Your task to perform on an android device: Clear the shopping cart on target. Add "razer kraken" to the cart on target, then select checkout. Image 0: 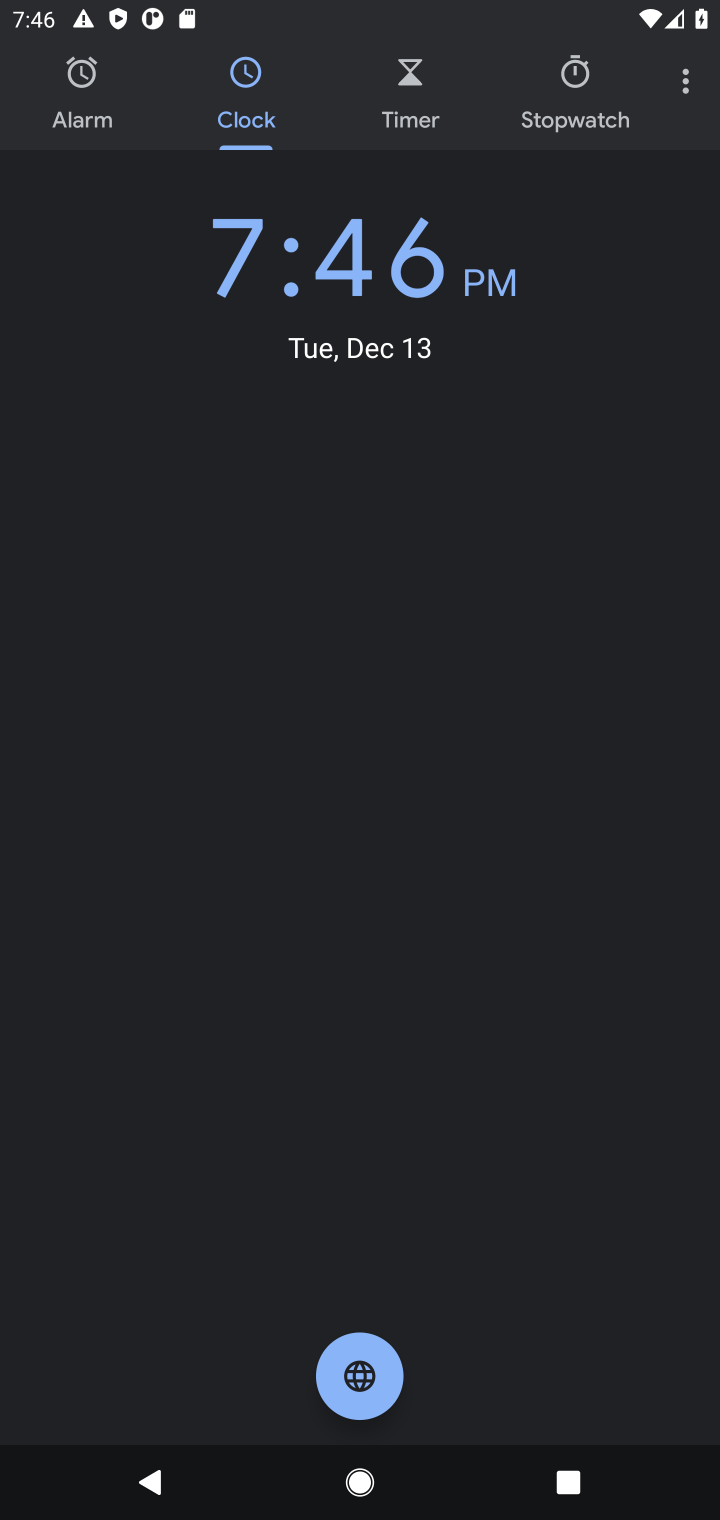
Step 0: press home button
Your task to perform on an android device: Clear the shopping cart on target. Add "razer kraken" to the cart on target, then select checkout. Image 1: 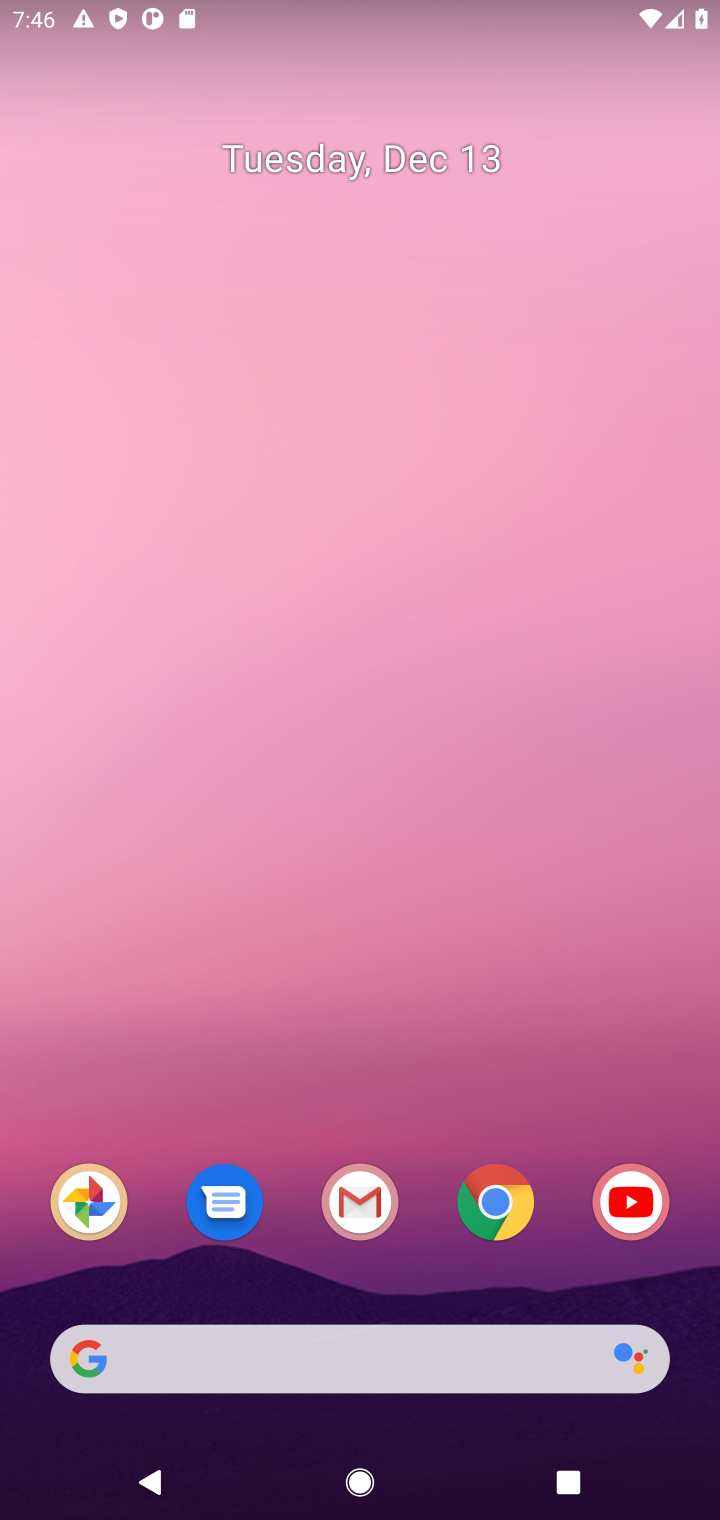
Step 1: click (490, 1207)
Your task to perform on an android device: Clear the shopping cart on target. Add "razer kraken" to the cart on target, then select checkout. Image 2: 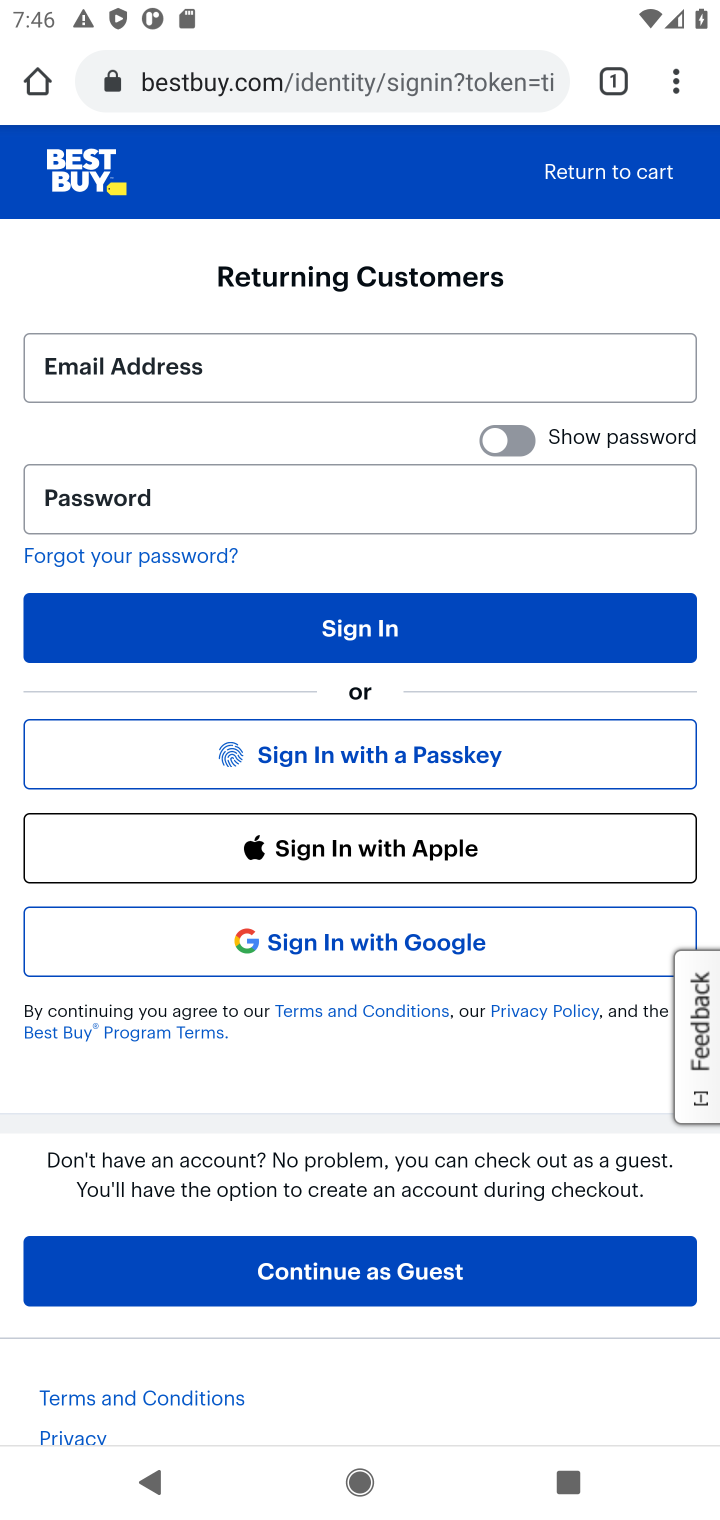
Step 2: click (289, 85)
Your task to perform on an android device: Clear the shopping cart on target. Add "razer kraken" to the cart on target, then select checkout. Image 3: 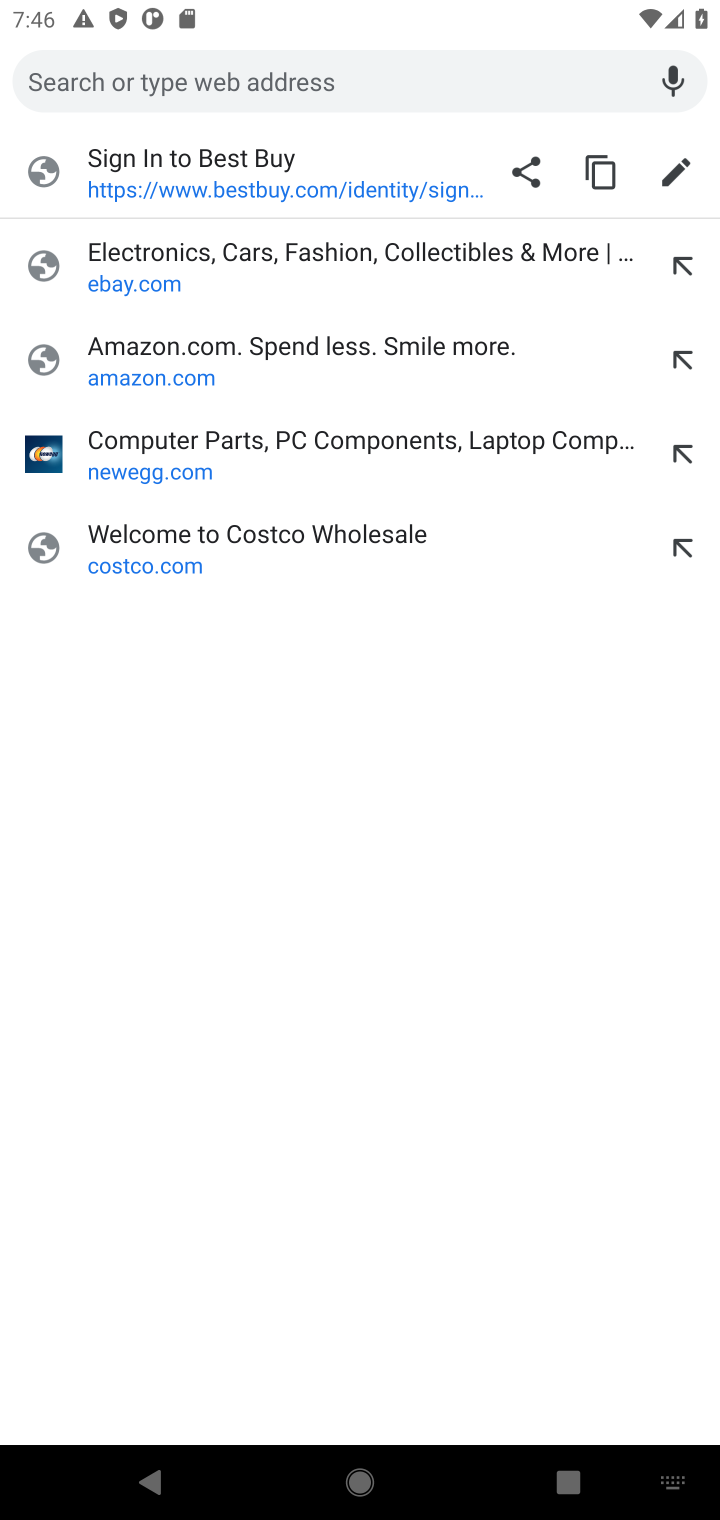
Step 3: type "target.com"
Your task to perform on an android device: Clear the shopping cart on target. Add "razer kraken" to the cart on target, then select checkout. Image 4: 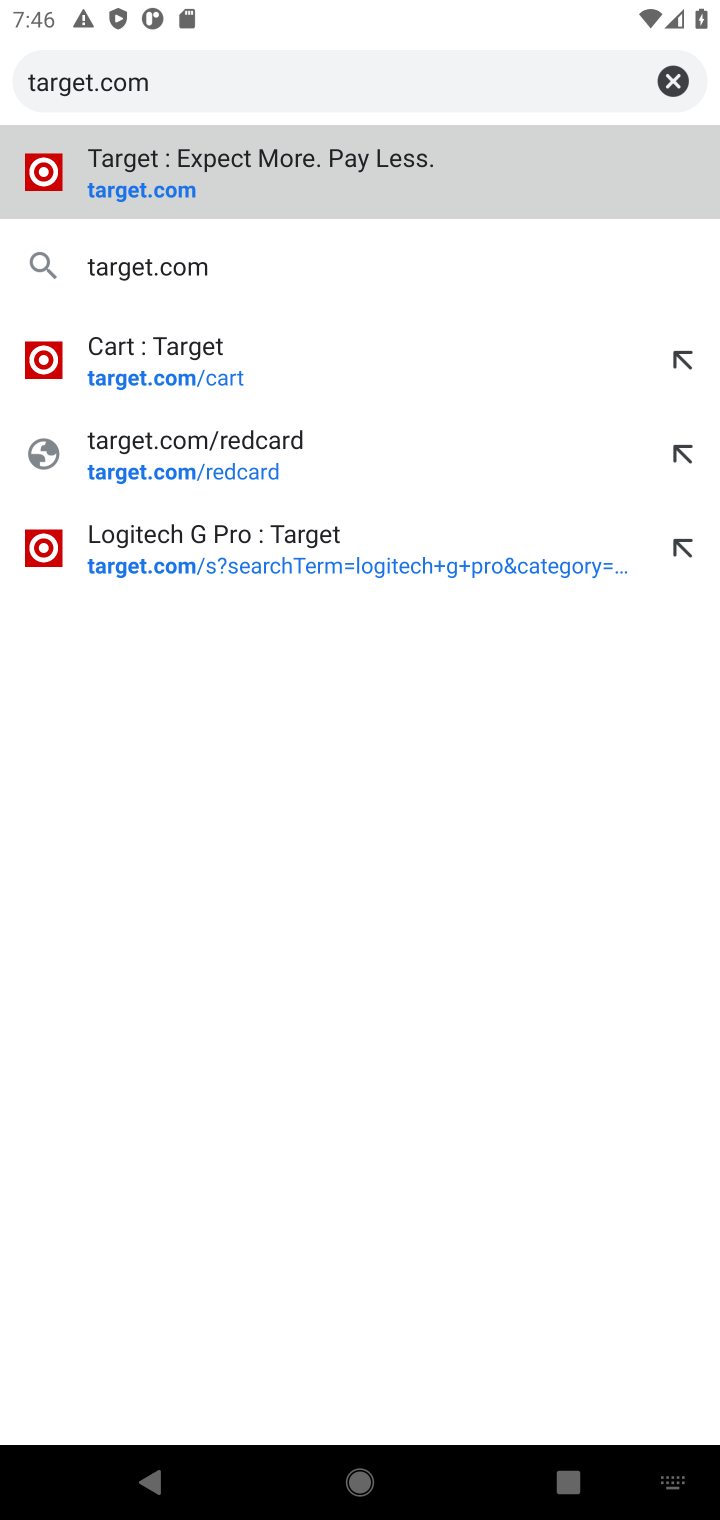
Step 4: click (157, 198)
Your task to perform on an android device: Clear the shopping cart on target. Add "razer kraken" to the cart on target, then select checkout. Image 5: 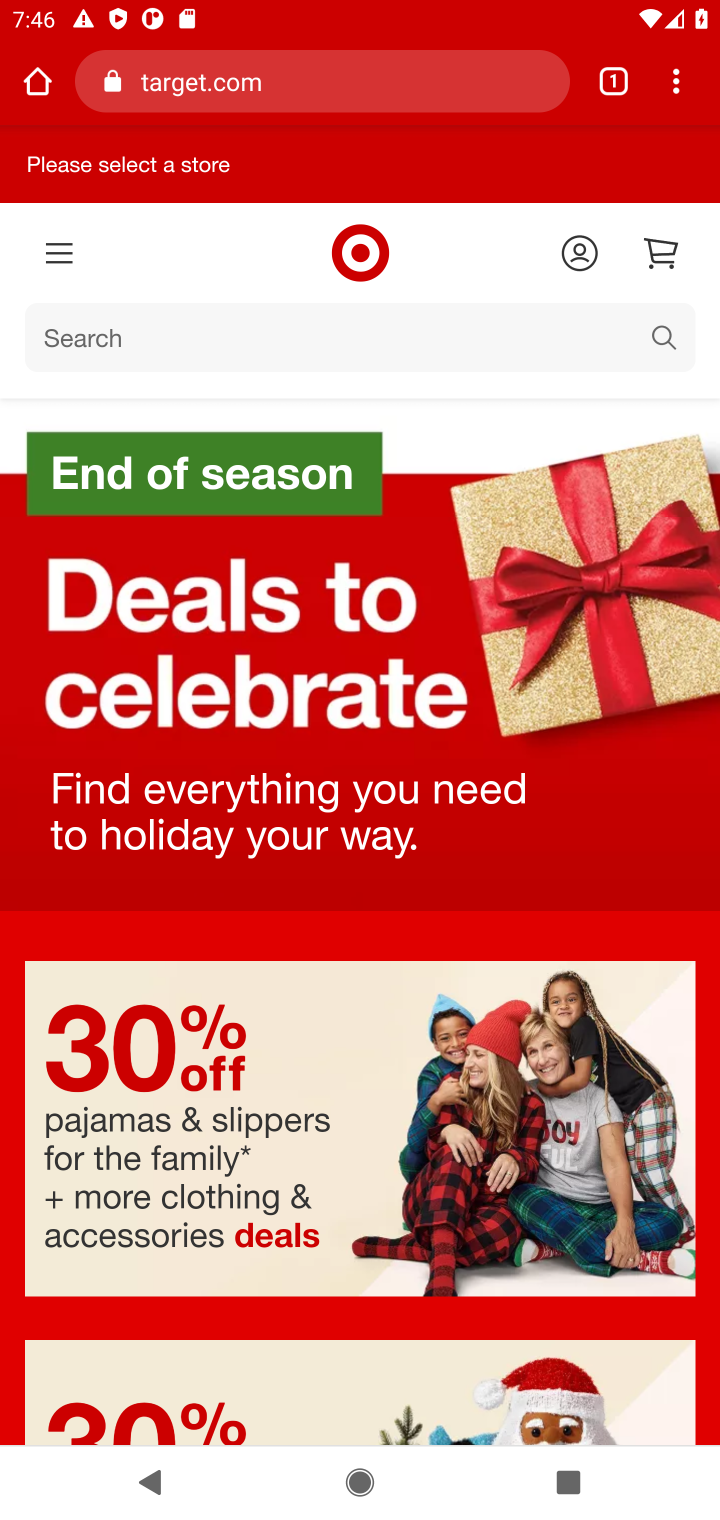
Step 5: click (652, 262)
Your task to perform on an android device: Clear the shopping cart on target. Add "razer kraken" to the cart on target, then select checkout. Image 6: 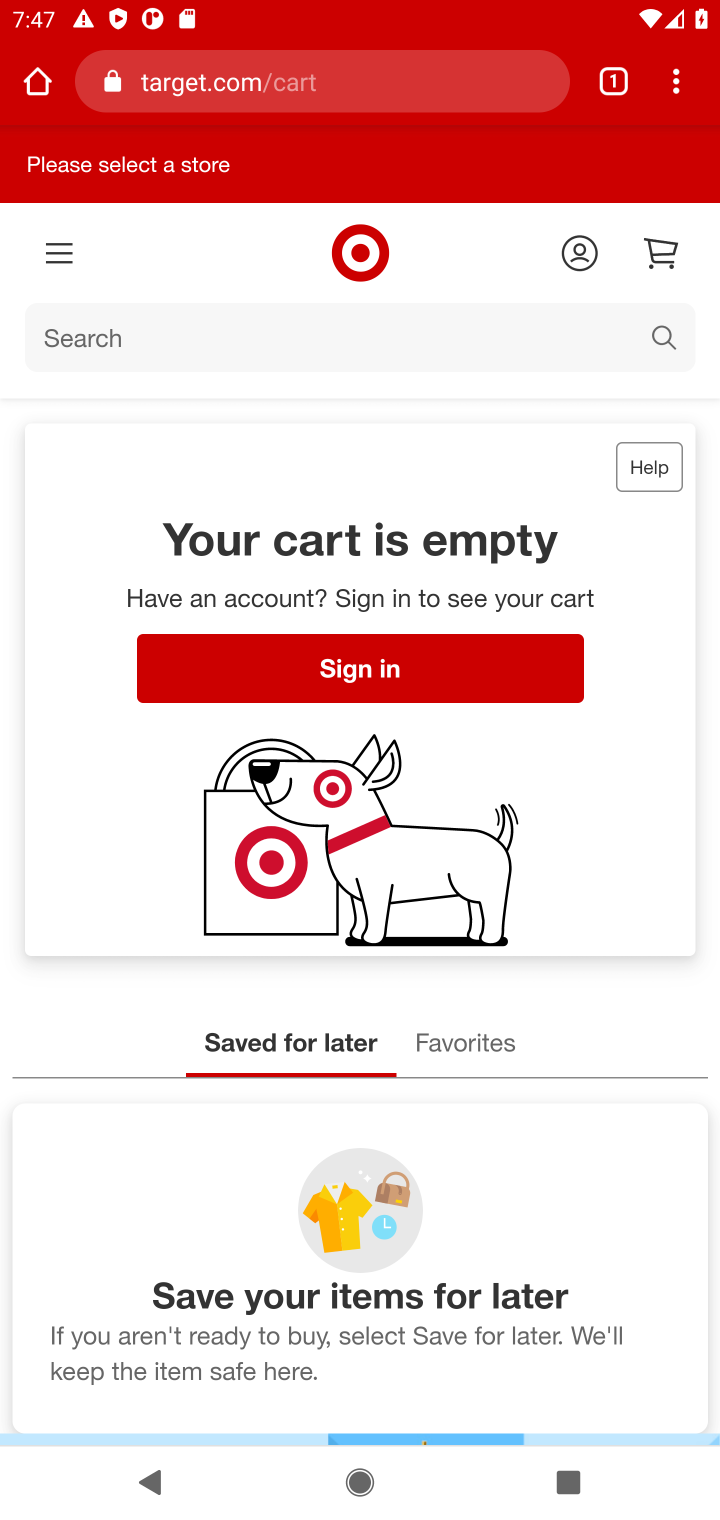
Step 6: click (87, 346)
Your task to perform on an android device: Clear the shopping cart on target. Add "razer kraken" to the cart on target, then select checkout. Image 7: 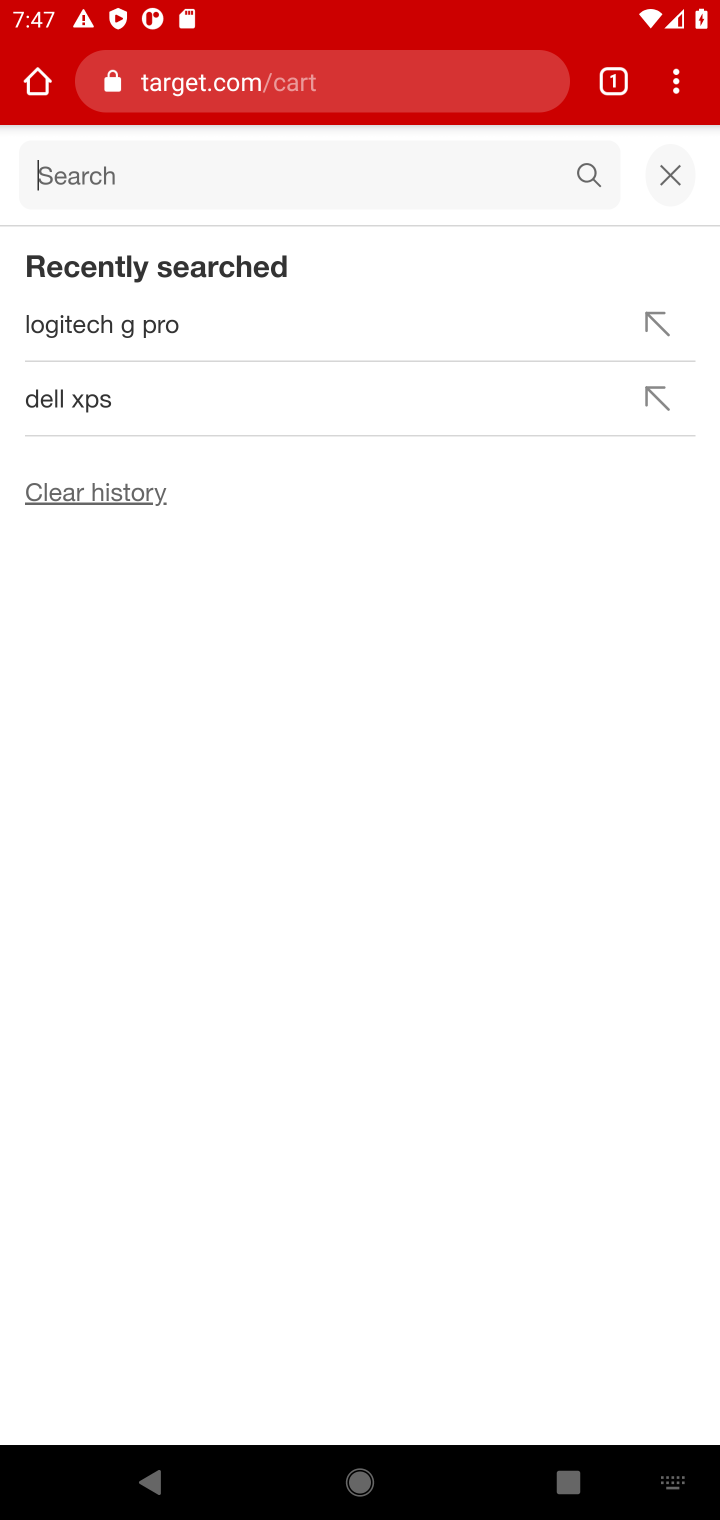
Step 7: type "razer kraken"
Your task to perform on an android device: Clear the shopping cart on target. Add "razer kraken" to the cart on target, then select checkout. Image 8: 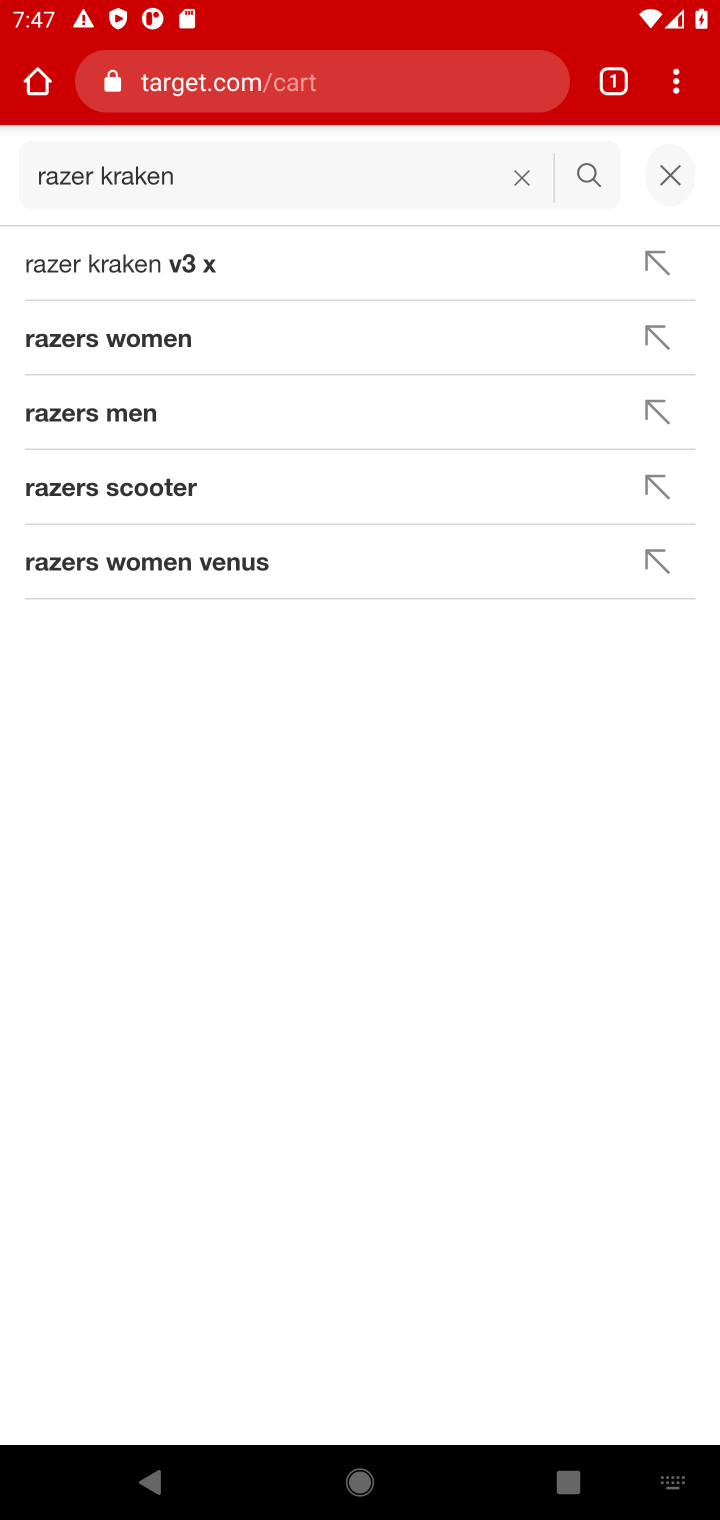
Step 8: click (587, 180)
Your task to perform on an android device: Clear the shopping cart on target. Add "razer kraken" to the cart on target, then select checkout. Image 9: 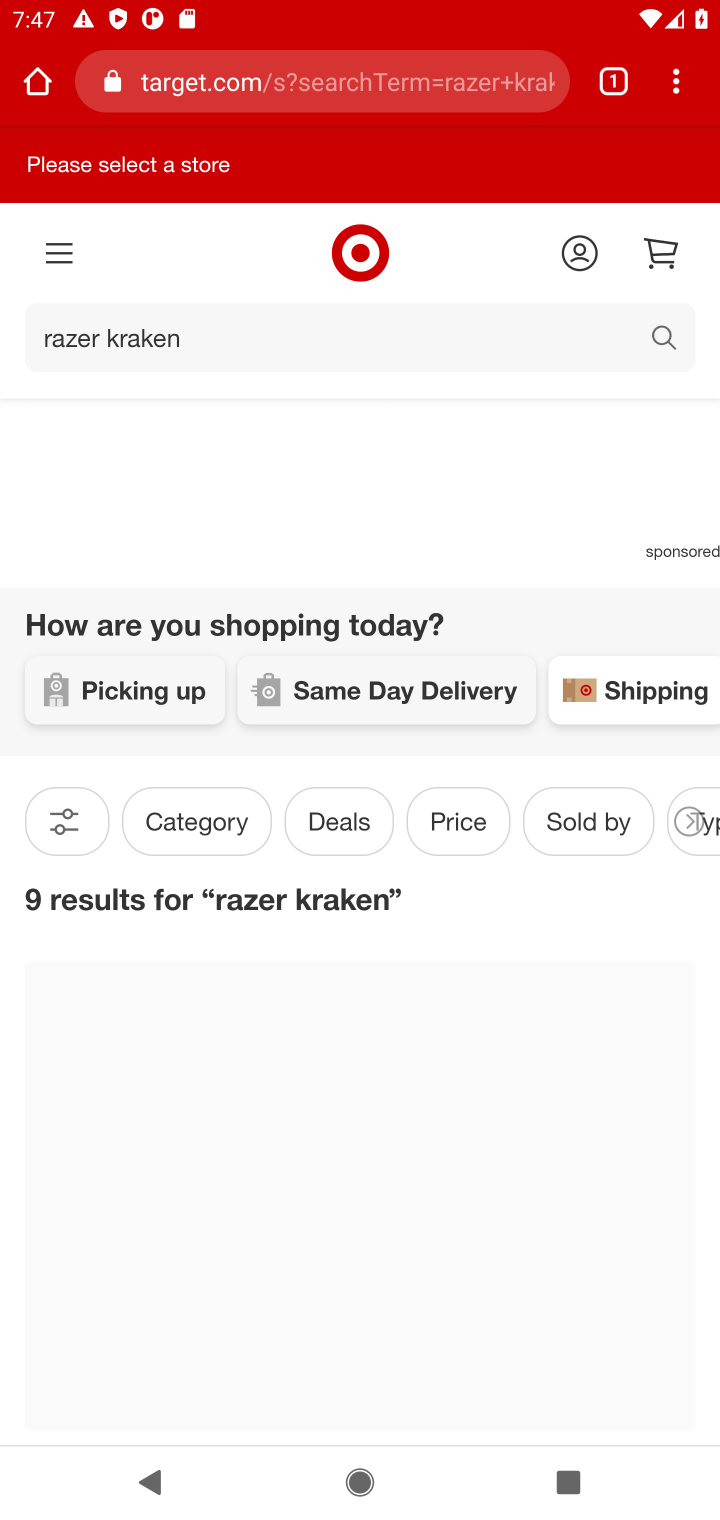
Step 9: drag from (246, 1117) to (215, 549)
Your task to perform on an android device: Clear the shopping cart on target. Add "razer kraken" to the cart on target, then select checkout. Image 10: 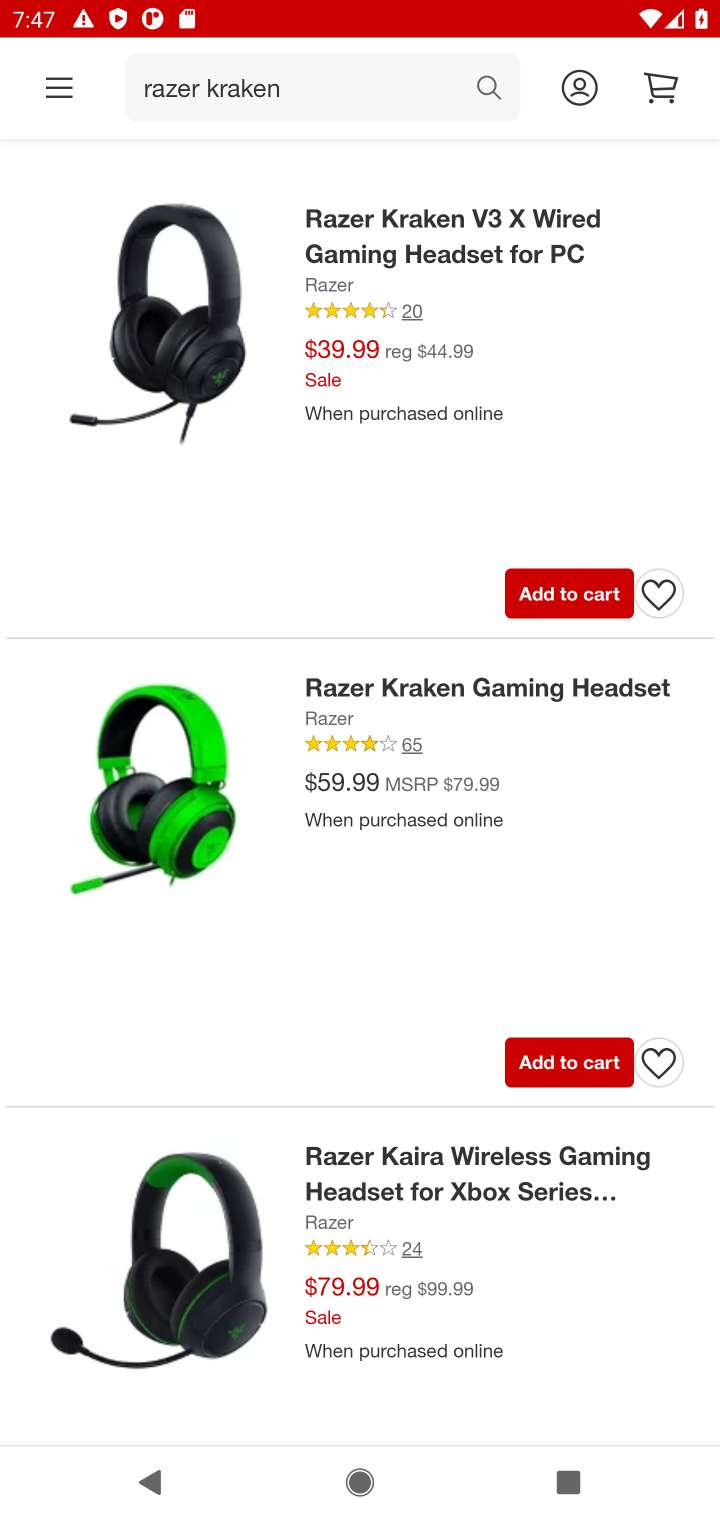
Step 10: click (566, 586)
Your task to perform on an android device: Clear the shopping cart on target. Add "razer kraken" to the cart on target, then select checkout. Image 11: 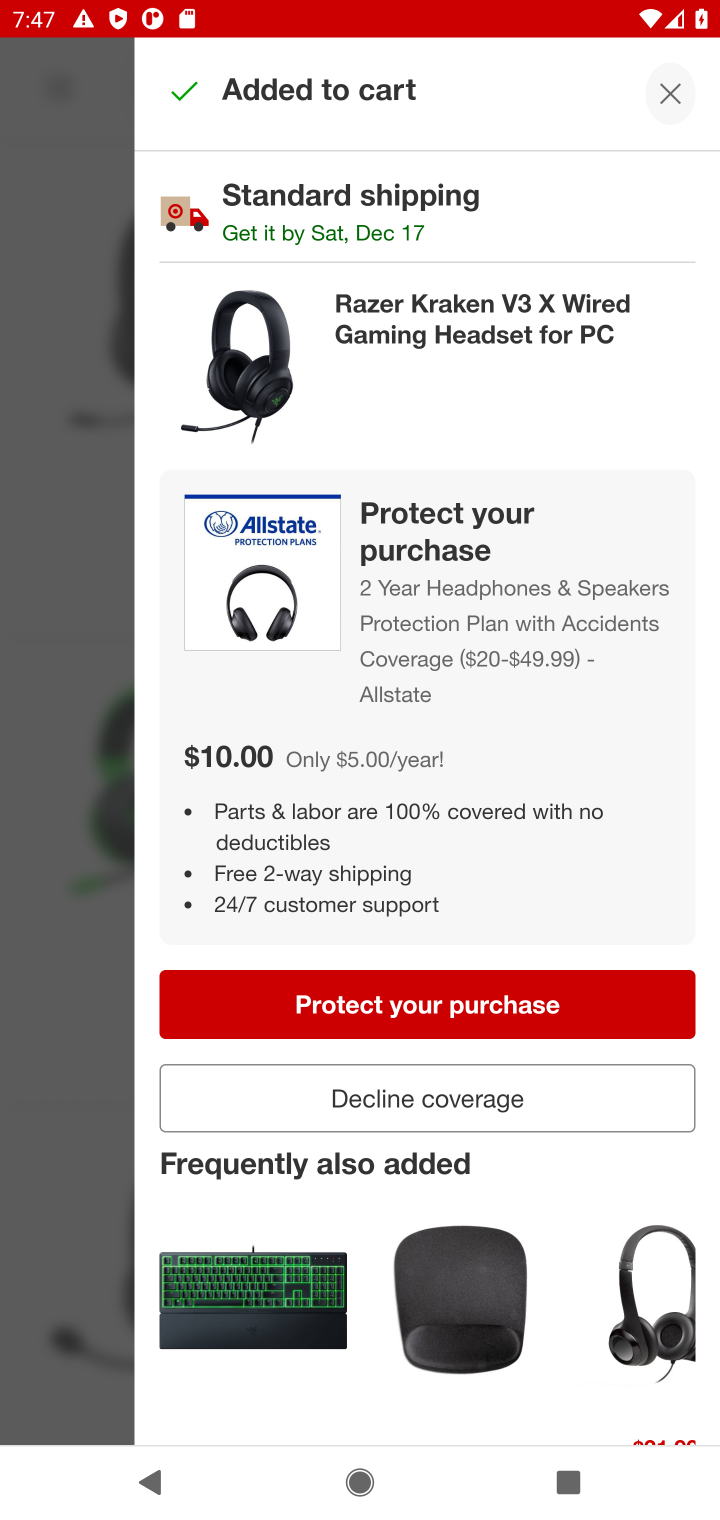
Step 11: click (663, 98)
Your task to perform on an android device: Clear the shopping cart on target. Add "razer kraken" to the cart on target, then select checkout. Image 12: 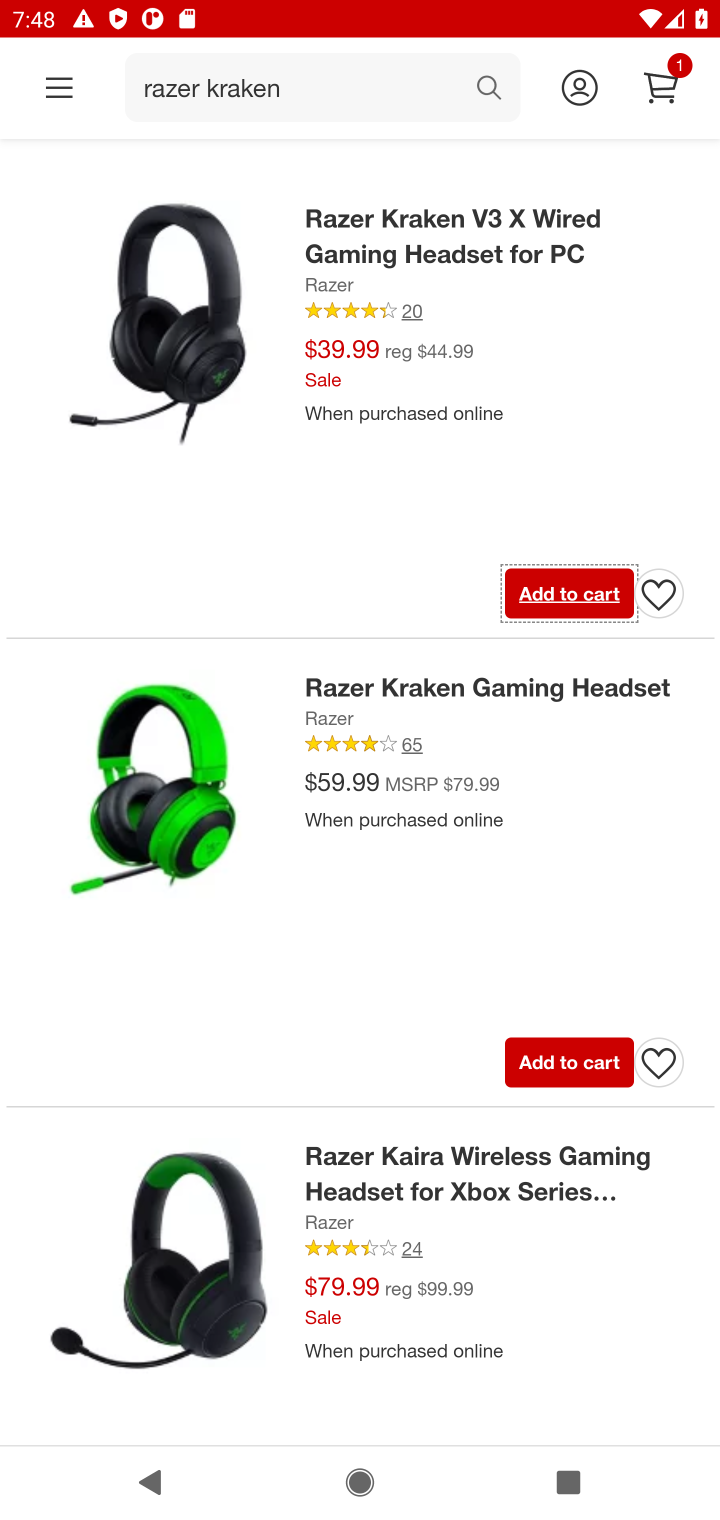
Step 12: click (672, 87)
Your task to perform on an android device: Clear the shopping cart on target. Add "razer kraken" to the cart on target, then select checkout. Image 13: 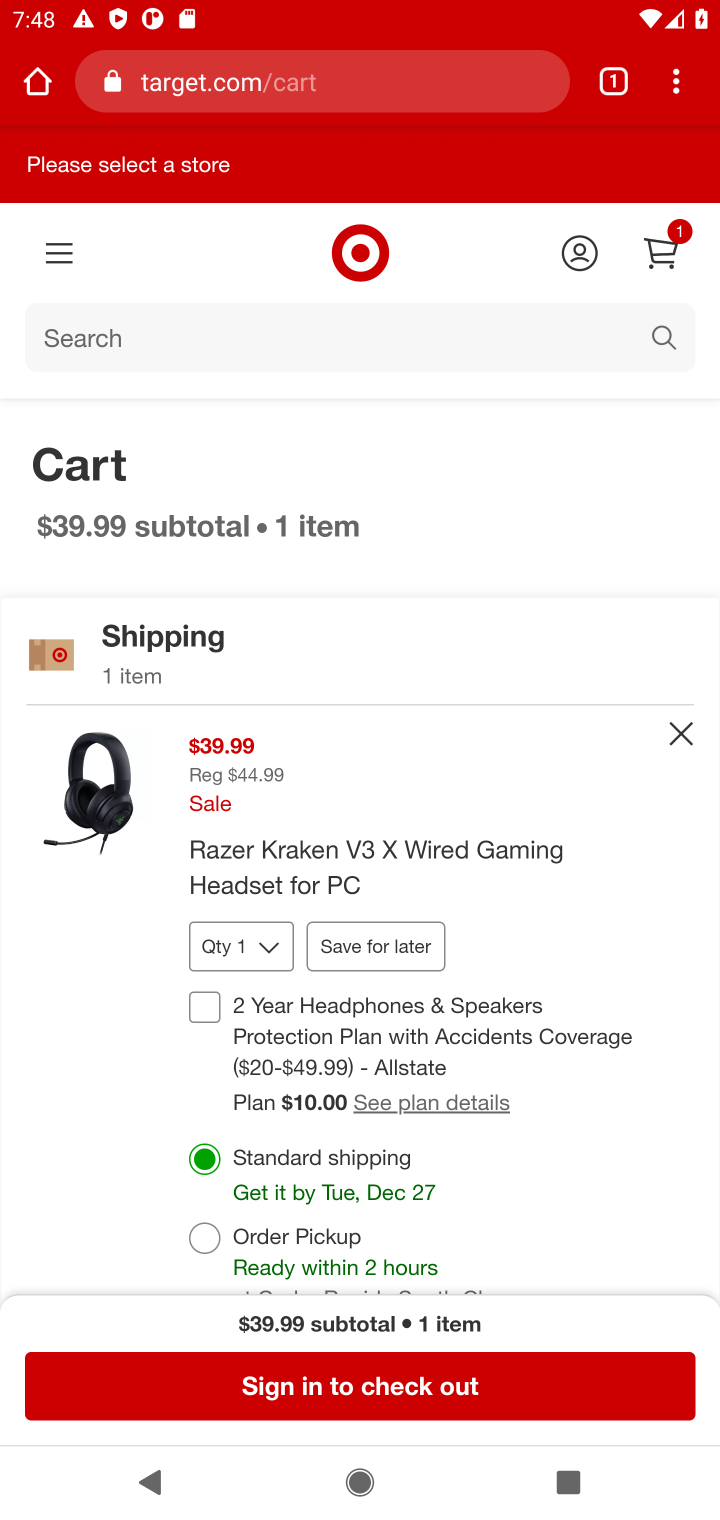
Step 13: click (338, 1386)
Your task to perform on an android device: Clear the shopping cart on target. Add "razer kraken" to the cart on target, then select checkout. Image 14: 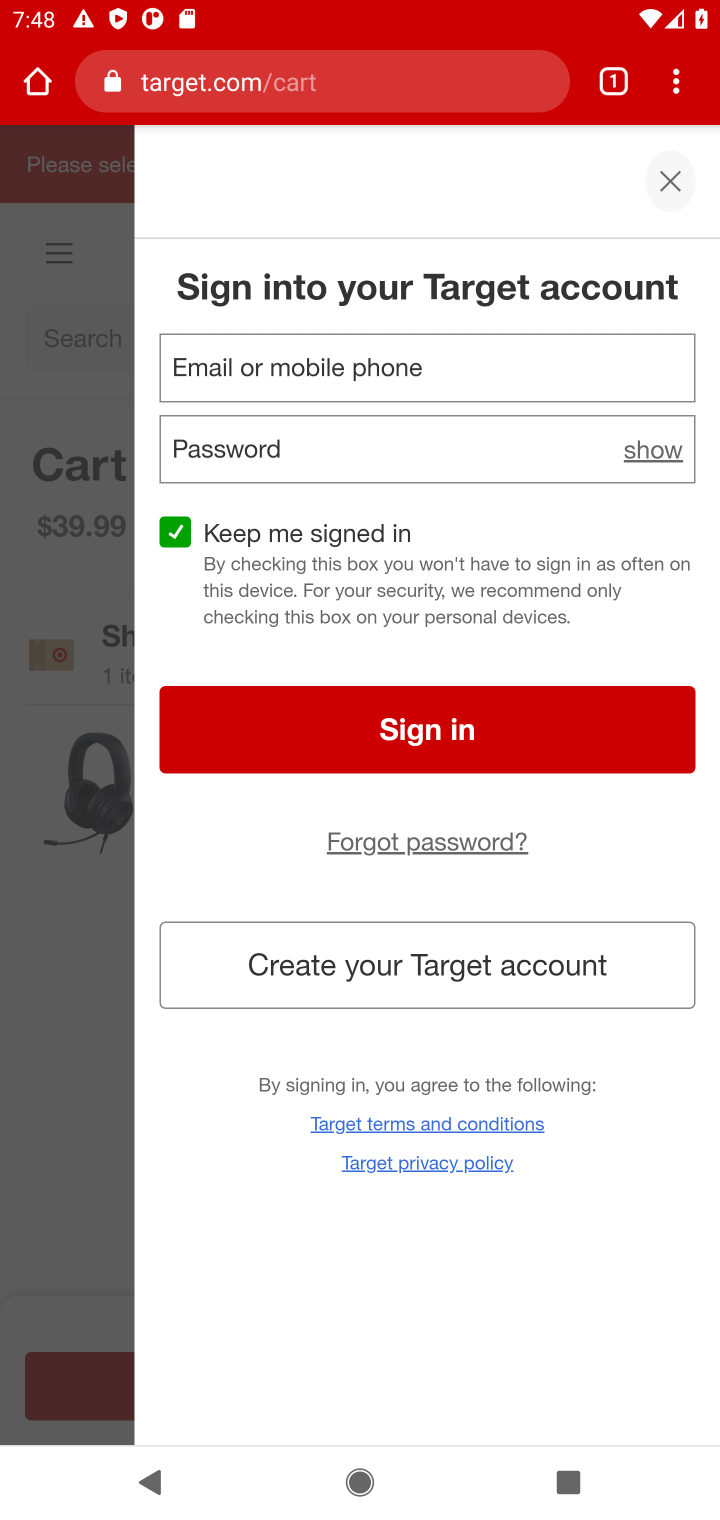
Step 14: task complete